Your task to perform on an android device: turn off data saver in the chrome app Image 0: 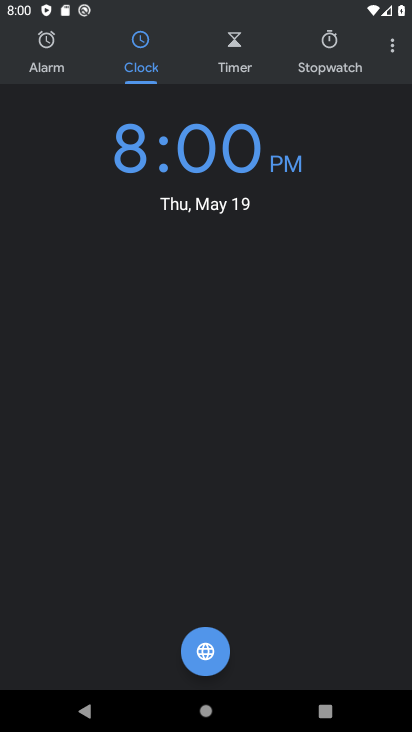
Step 0: press home button
Your task to perform on an android device: turn off data saver in the chrome app Image 1: 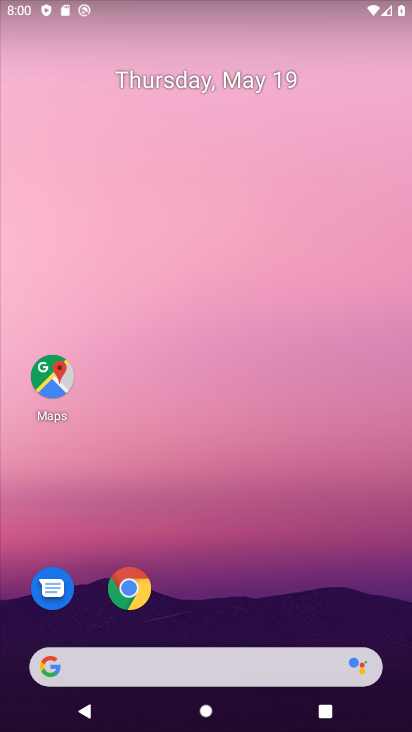
Step 1: click (128, 596)
Your task to perform on an android device: turn off data saver in the chrome app Image 2: 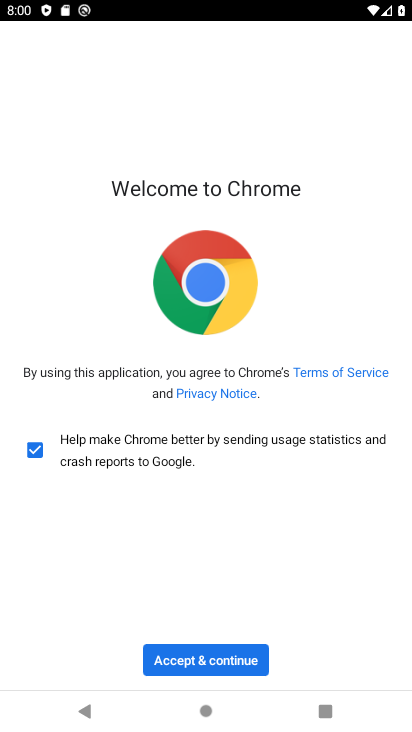
Step 2: click (222, 662)
Your task to perform on an android device: turn off data saver in the chrome app Image 3: 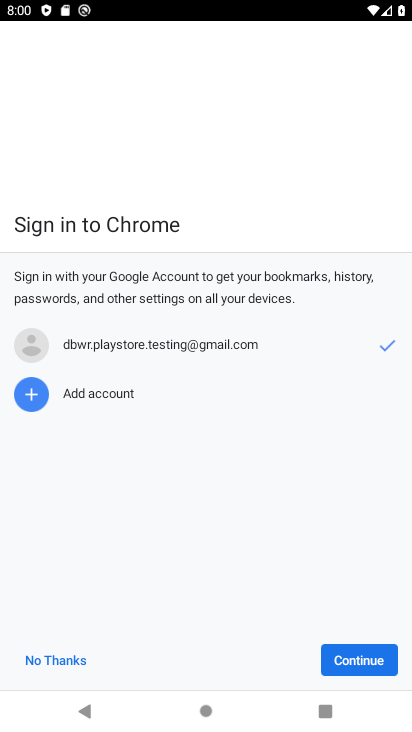
Step 3: click (346, 662)
Your task to perform on an android device: turn off data saver in the chrome app Image 4: 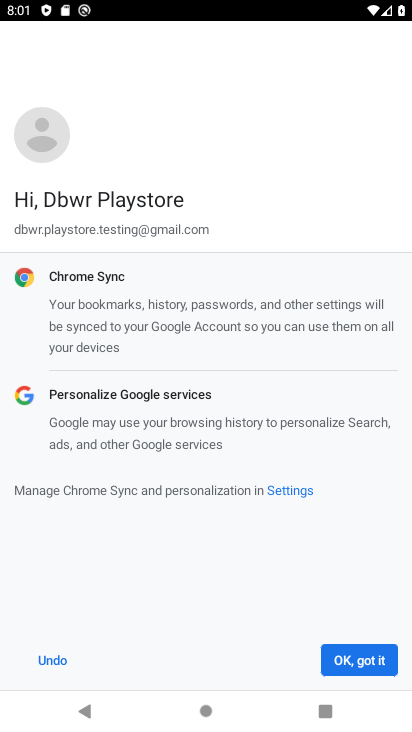
Step 4: click (371, 665)
Your task to perform on an android device: turn off data saver in the chrome app Image 5: 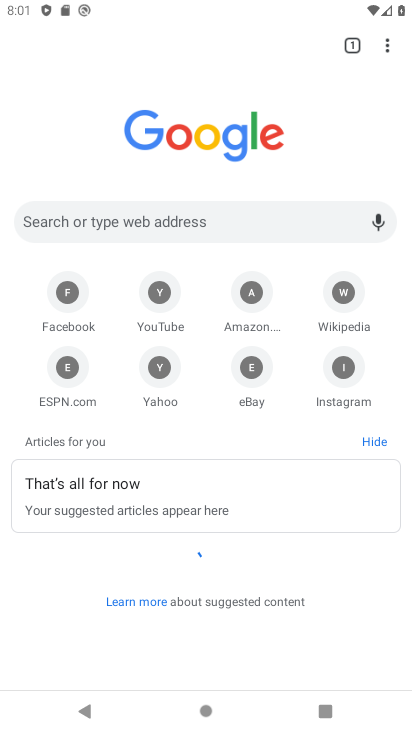
Step 5: click (387, 49)
Your task to perform on an android device: turn off data saver in the chrome app Image 6: 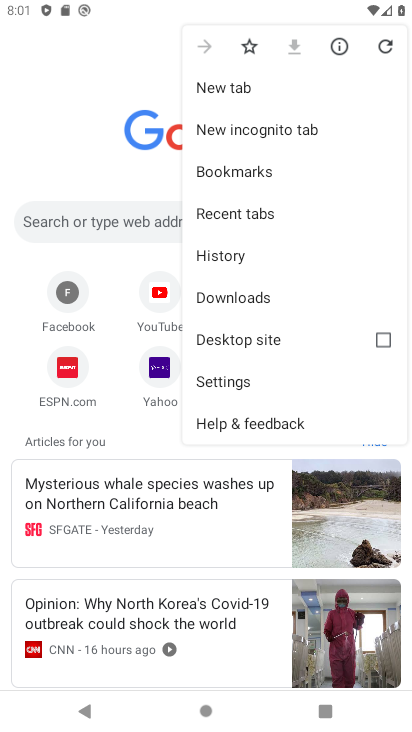
Step 6: click (235, 378)
Your task to perform on an android device: turn off data saver in the chrome app Image 7: 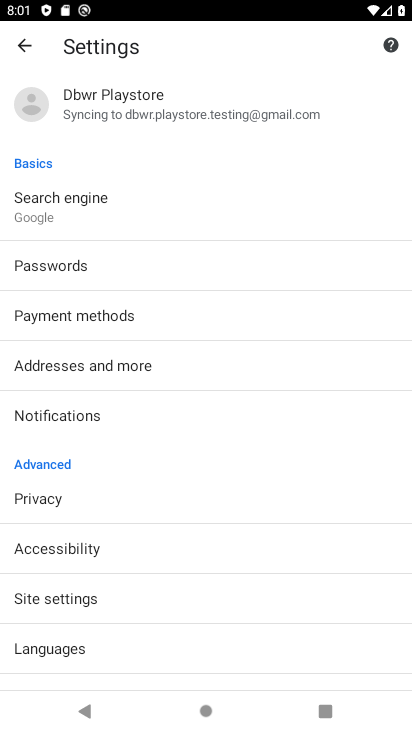
Step 7: drag from (110, 651) to (159, 391)
Your task to perform on an android device: turn off data saver in the chrome app Image 8: 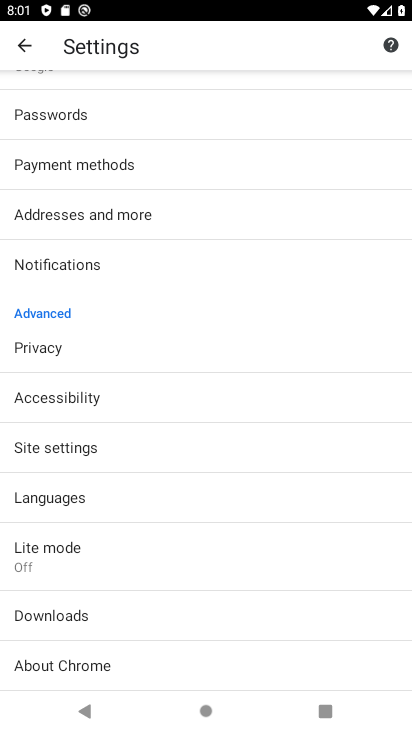
Step 8: click (63, 548)
Your task to perform on an android device: turn off data saver in the chrome app Image 9: 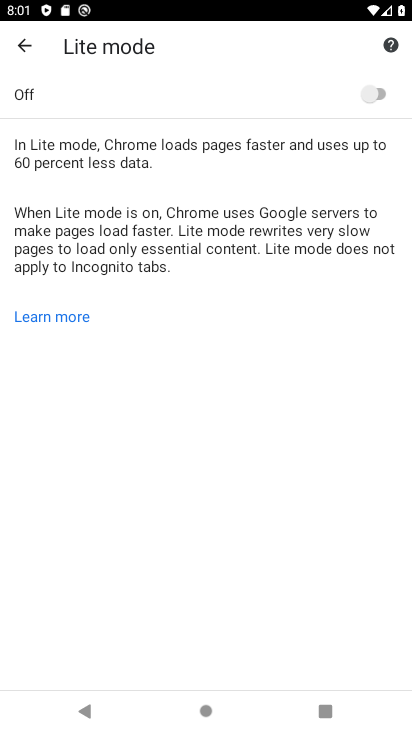
Step 9: task complete